Your task to perform on an android device: Open Chrome and go to settings Image 0: 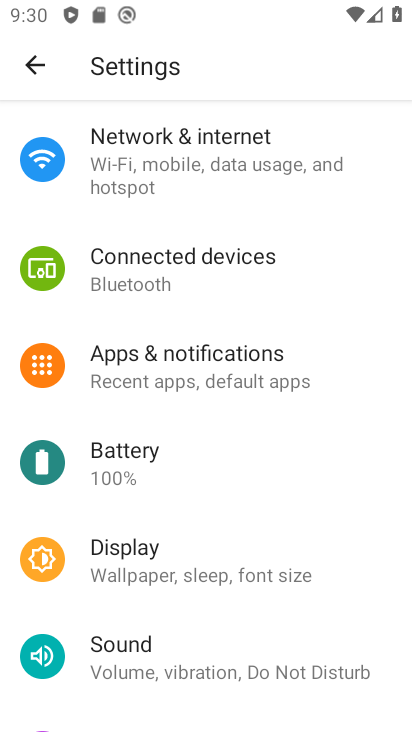
Step 0: press back button
Your task to perform on an android device: Open Chrome and go to settings Image 1: 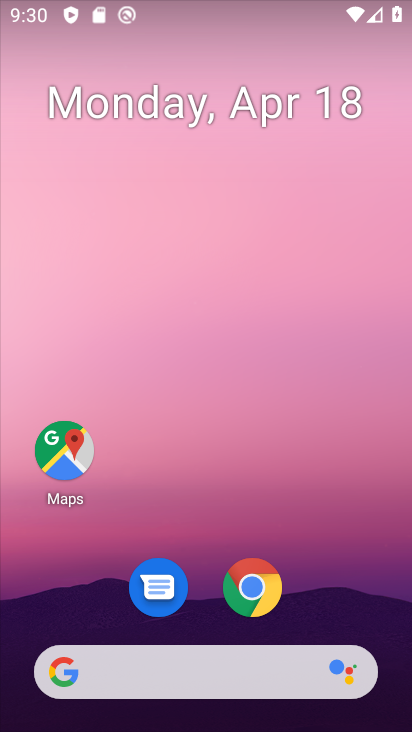
Step 1: click (252, 588)
Your task to perform on an android device: Open Chrome and go to settings Image 2: 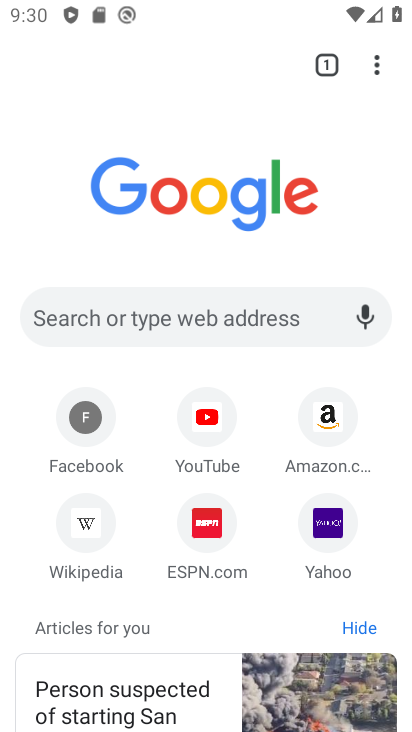
Step 2: click (375, 62)
Your task to perform on an android device: Open Chrome and go to settings Image 3: 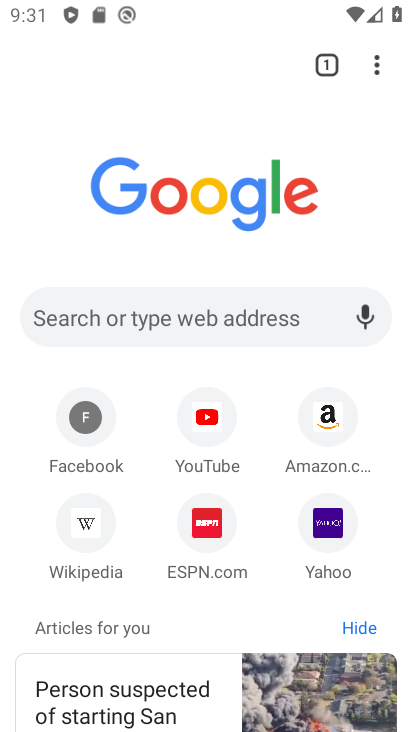
Step 3: click (375, 60)
Your task to perform on an android device: Open Chrome and go to settings Image 4: 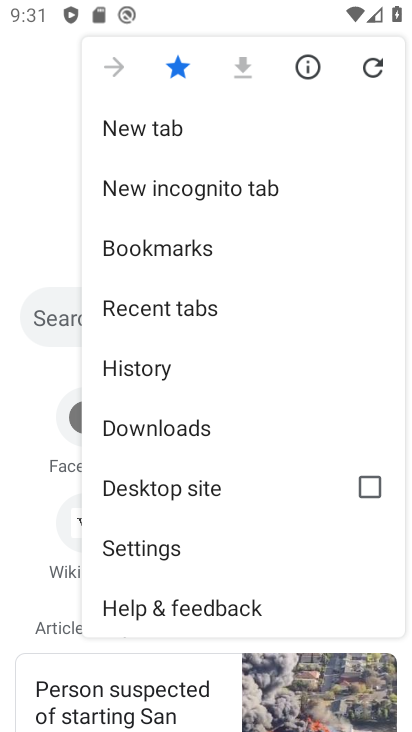
Step 4: click (147, 551)
Your task to perform on an android device: Open Chrome and go to settings Image 5: 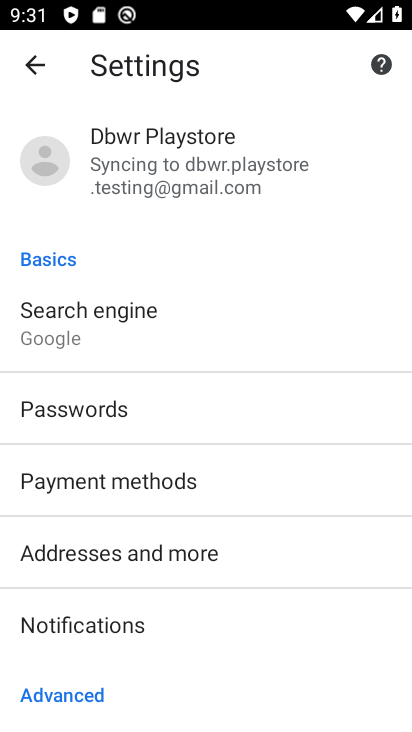
Step 5: task complete